Your task to perform on an android device: turn off location Image 0: 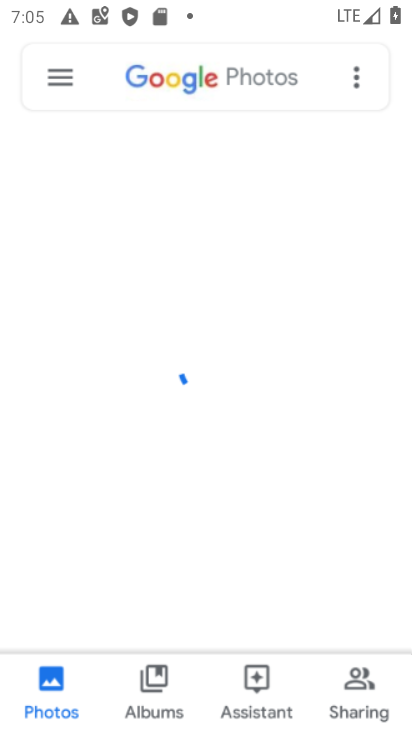
Step 0: press home button
Your task to perform on an android device: turn off location Image 1: 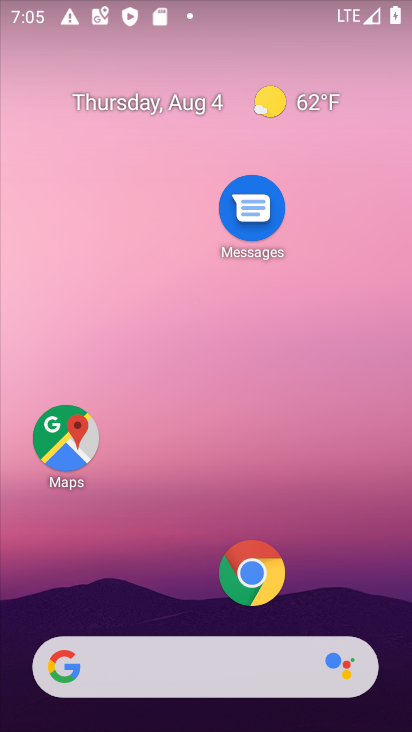
Step 1: drag from (180, 619) to (244, 136)
Your task to perform on an android device: turn off location Image 2: 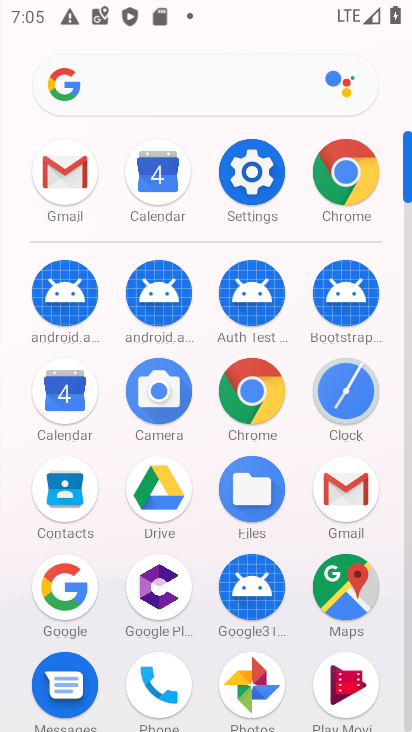
Step 2: click (264, 169)
Your task to perform on an android device: turn off location Image 3: 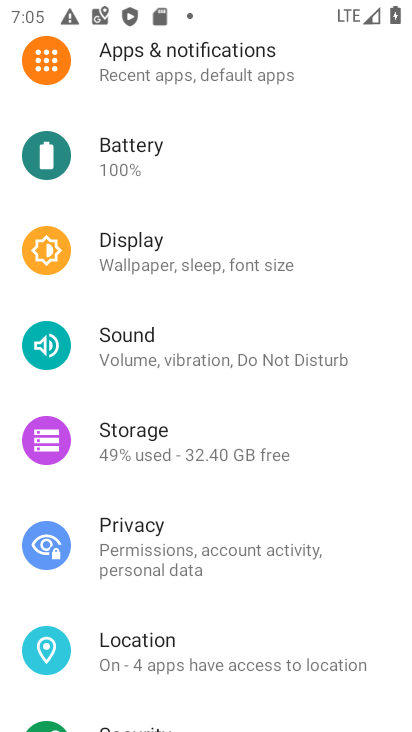
Step 3: click (142, 642)
Your task to perform on an android device: turn off location Image 4: 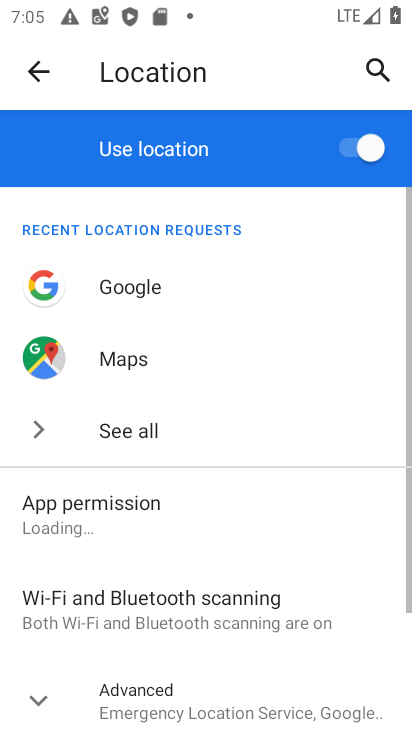
Step 4: click (372, 140)
Your task to perform on an android device: turn off location Image 5: 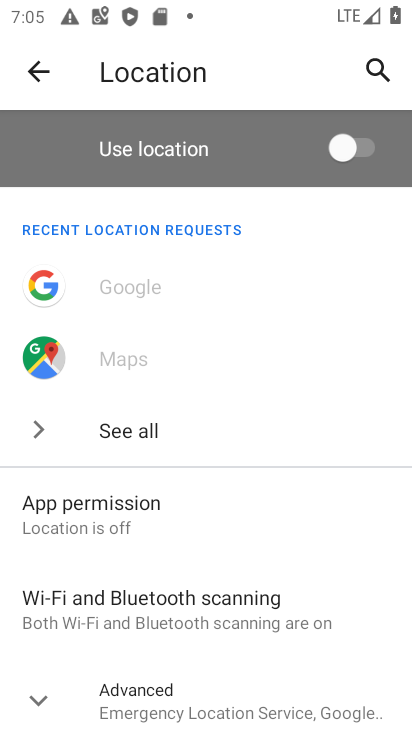
Step 5: task complete